Your task to perform on an android device: toggle show notifications on the lock screen Image 0: 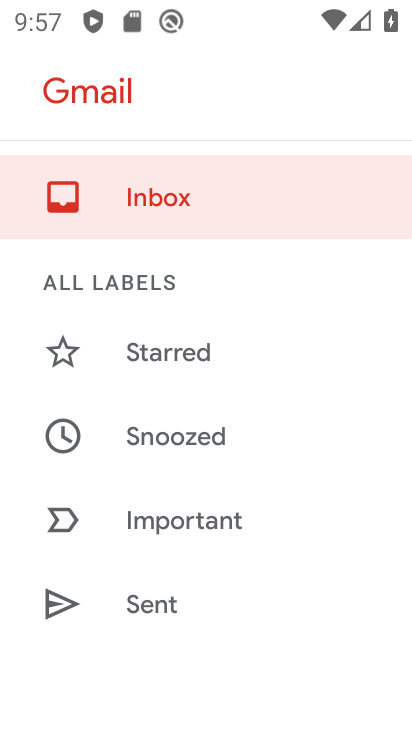
Step 0: press home button
Your task to perform on an android device: toggle show notifications on the lock screen Image 1: 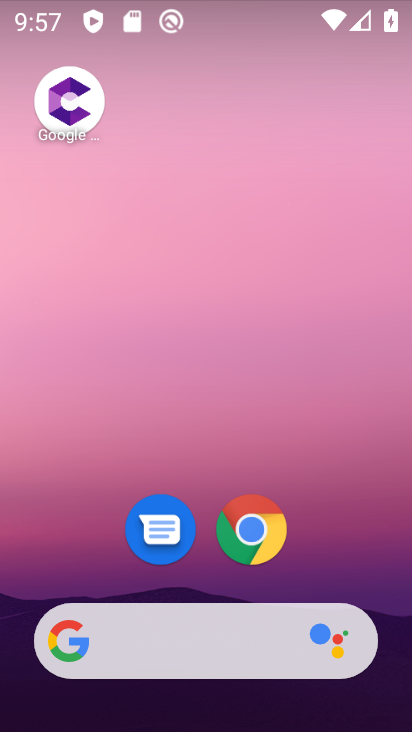
Step 1: drag from (268, 619) to (171, 23)
Your task to perform on an android device: toggle show notifications on the lock screen Image 2: 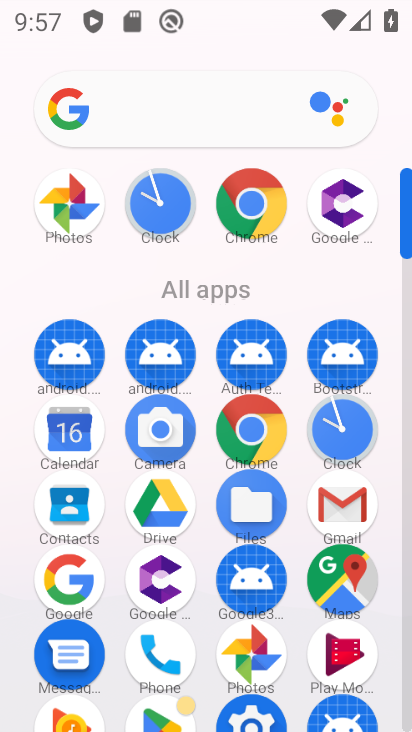
Step 2: drag from (386, 662) to (261, 177)
Your task to perform on an android device: toggle show notifications on the lock screen Image 3: 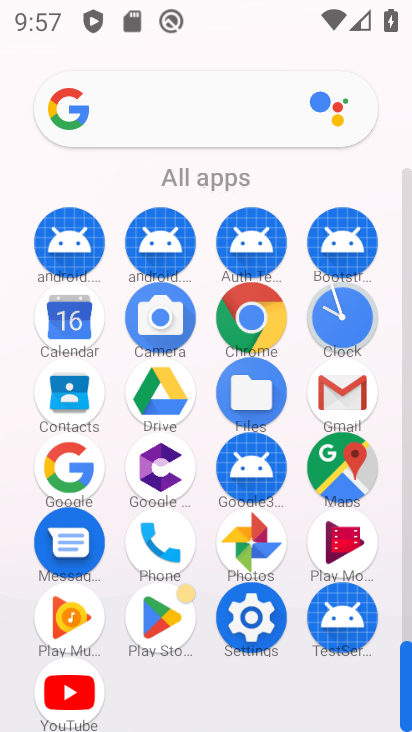
Step 3: click (264, 620)
Your task to perform on an android device: toggle show notifications on the lock screen Image 4: 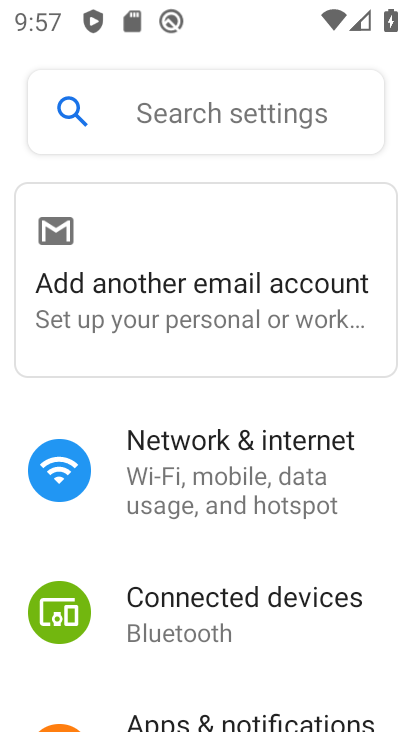
Step 4: drag from (282, 682) to (293, 203)
Your task to perform on an android device: toggle show notifications on the lock screen Image 5: 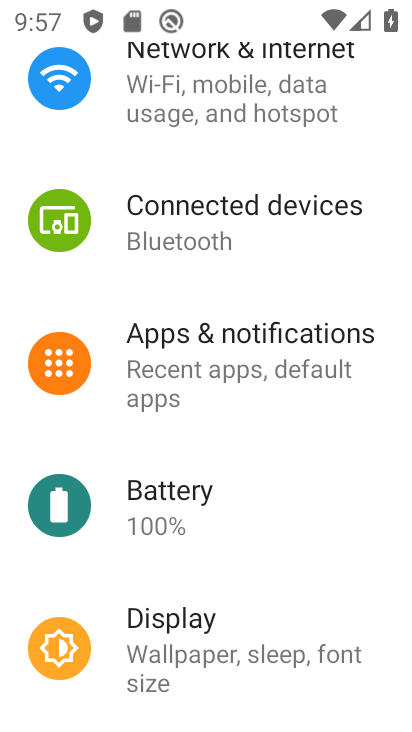
Step 5: click (195, 344)
Your task to perform on an android device: toggle show notifications on the lock screen Image 6: 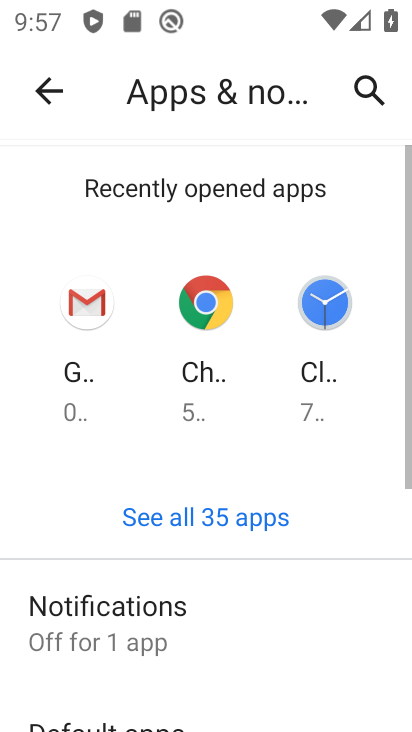
Step 6: click (57, 649)
Your task to perform on an android device: toggle show notifications on the lock screen Image 7: 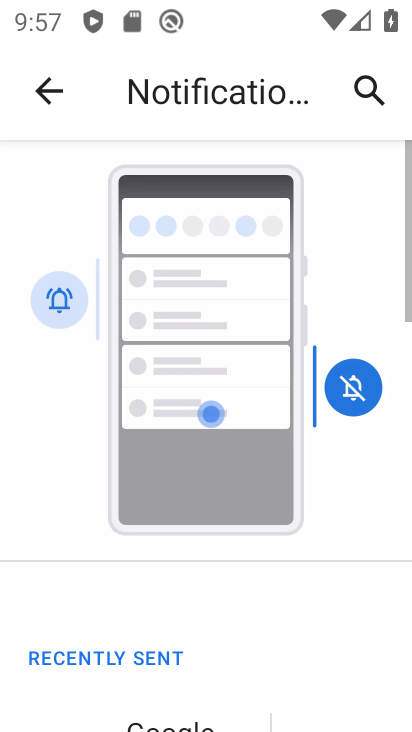
Step 7: drag from (160, 678) to (198, 172)
Your task to perform on an android device: toggle show notifications on the lock screen Image 8: 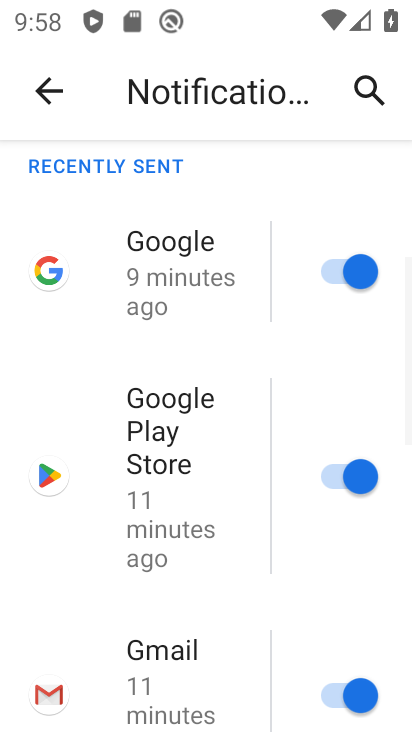
Step 8: drag from (193, 644) to (219, 137)
Your task to perform on an android device: toggle show notifications on the lock screen Image 9: 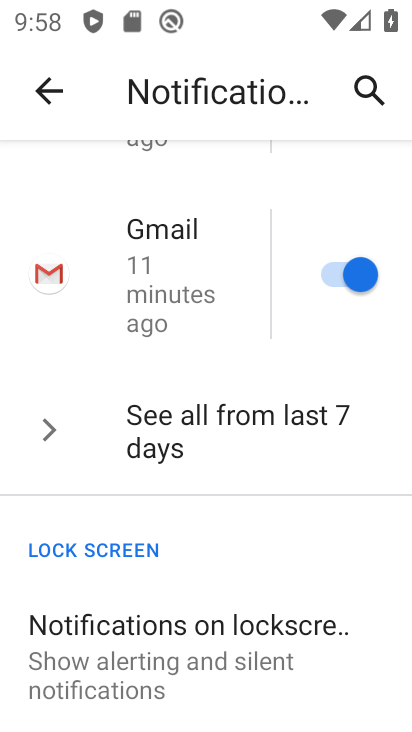
Step 9: click (204, 642)
Your task to perform on an android device: toggle show notifications on the lock screen Image 10: 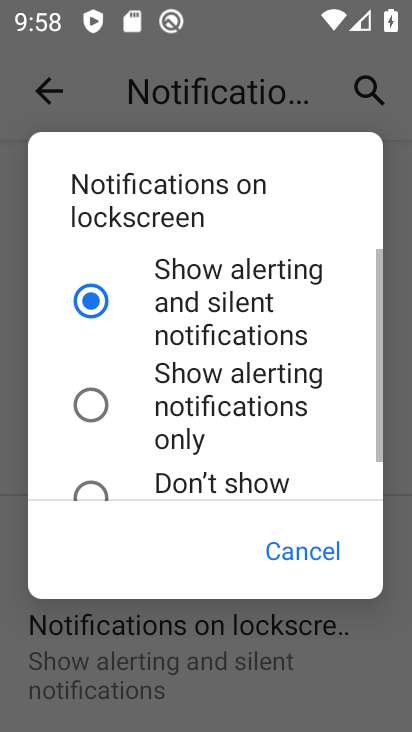
Step 10: click (192, 387)
Your task to perform on an android device: toggle show notifications on the lock screen Image 11: 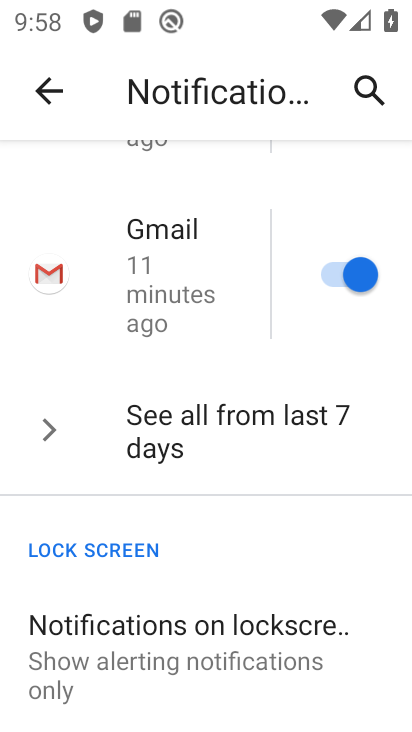
Step 11: task complete